Your task to perform on an android device: Open calendar and show me the fourth week of next month Image 0: 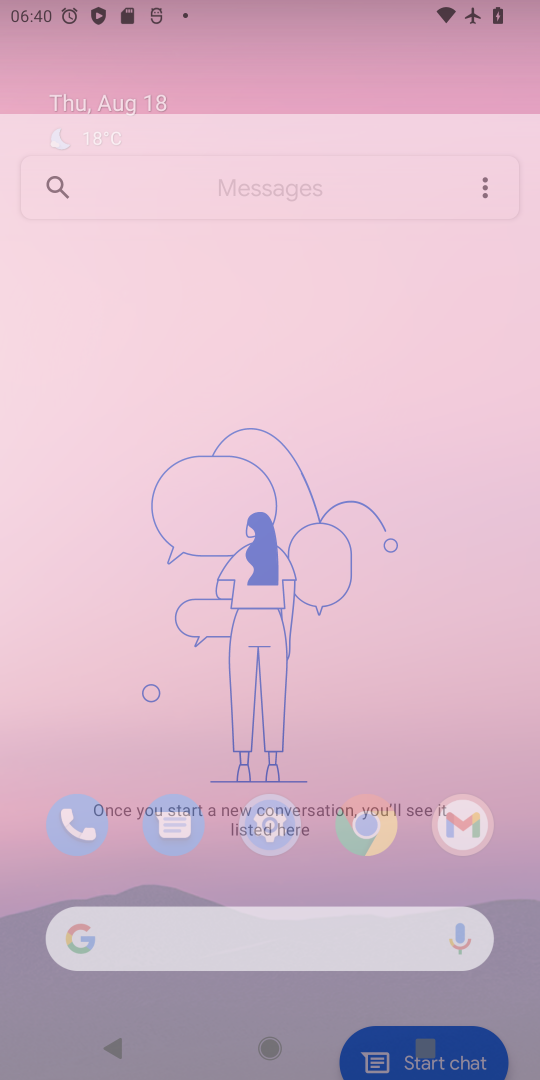
Step 0: press home button
Your task to perform on an android device: Open calendar and show me the fourth week of next month Image 1: 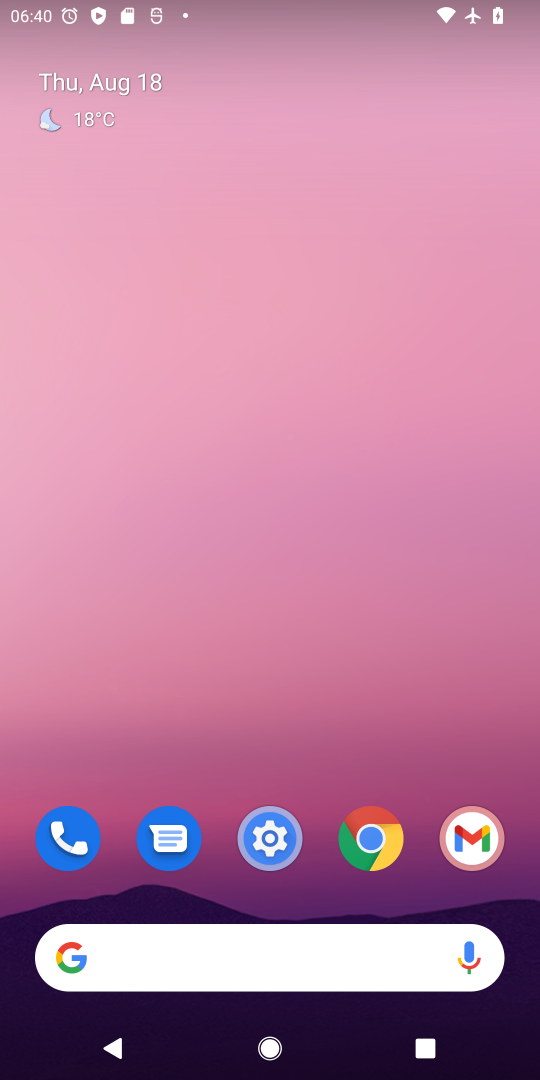
Step 1: drag from (322, 883) to (365, 7)
Your task to perform on an android device: Open calendar and show me the fourth week of next month Image 2: 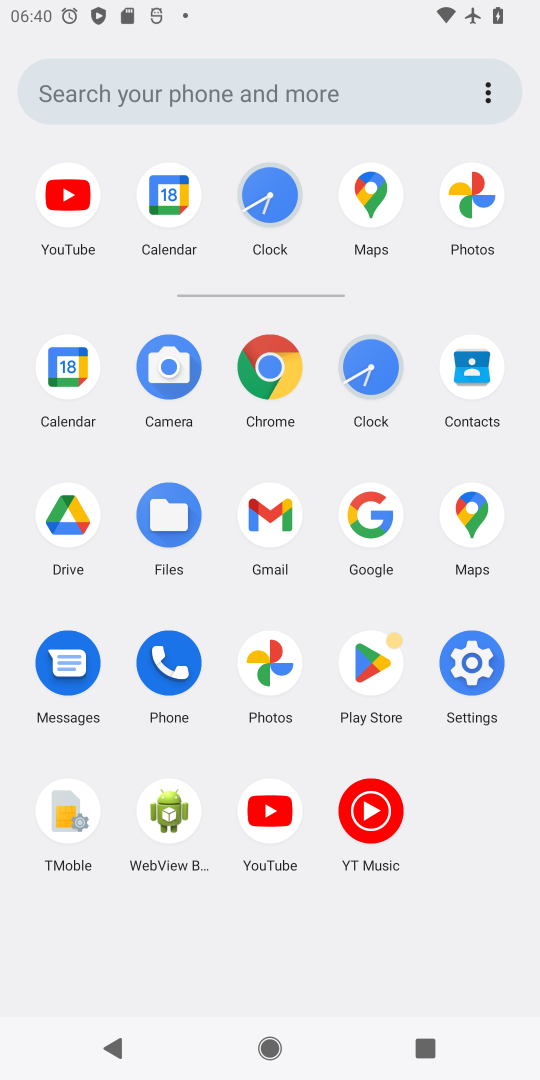
Step 2: click (171, 196)
Your task to perform on an android device: Open calendar and show me the fourth week of next month Image 3: 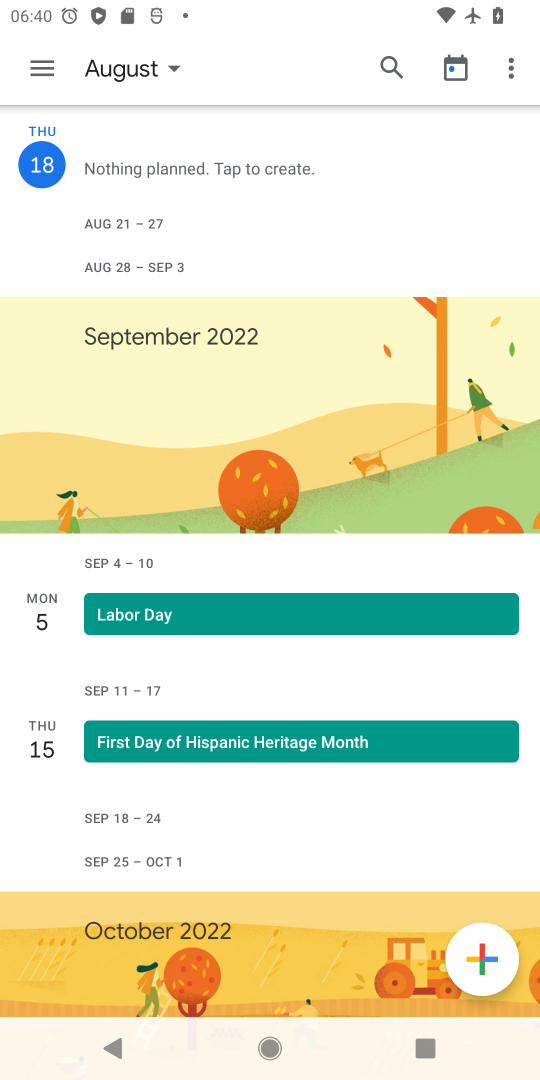
Step 3: click (163, 65)
Your task to perform on an android device: Open calendar and show me the fourth week of next month Image 4: 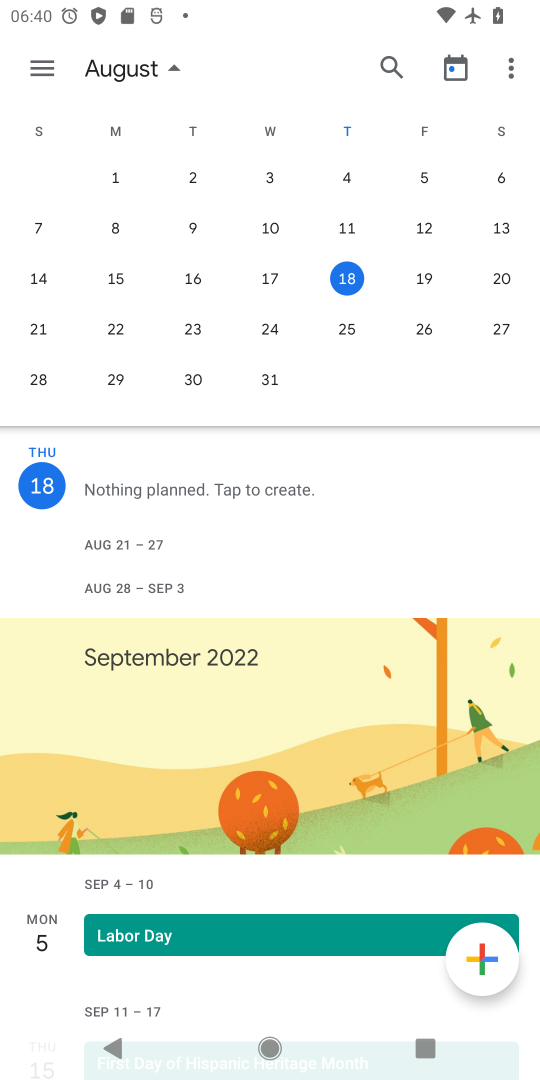
Step 4: drag from (463, 286) to (27, 317)
Your task to perform on an android device: Open calendar and show me the fourth week of next month Image 5: 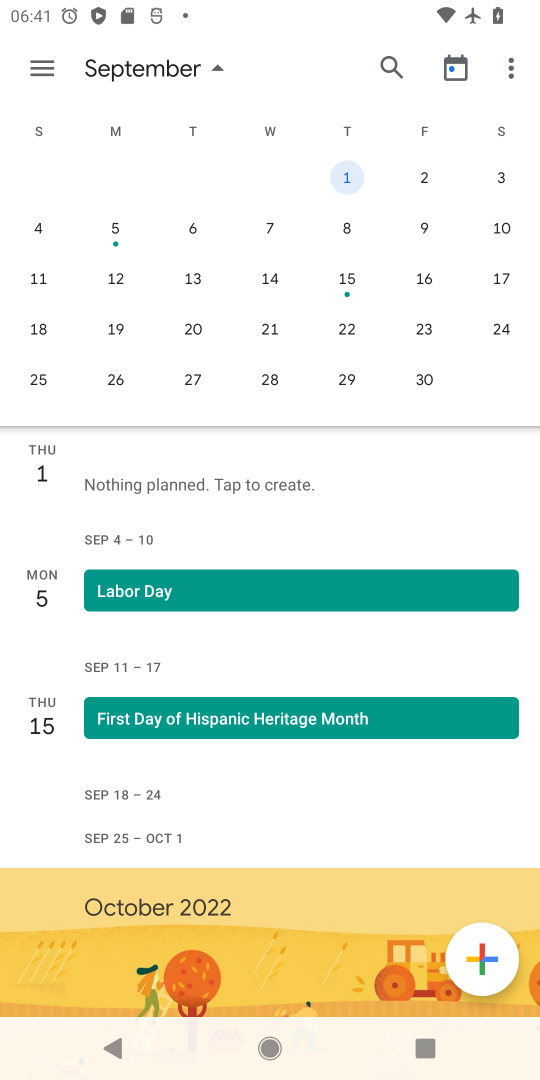
Step 5: click (513, 340)
Your task to perform on an android device: Open calendar and show me the fourth week of next month Image 6: 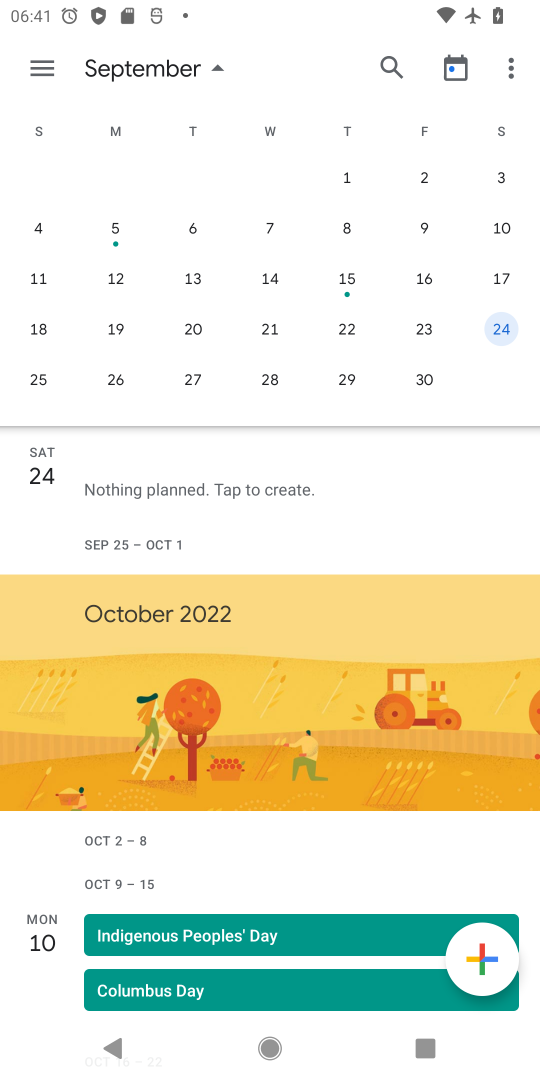
Step 6: click (45, 375)
Your task to perform on an android device: Open calendar and show me the fourth week of next month Image 7: 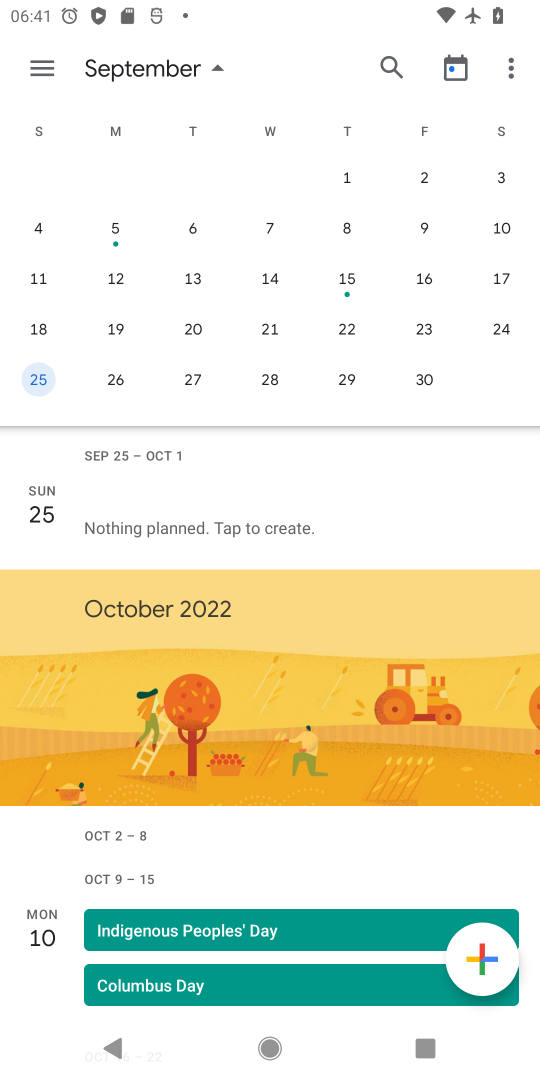
Step 7: click (116, 385)
Your task to perform on an android device: Open calendar and show me the fourth week of next month Image 8: 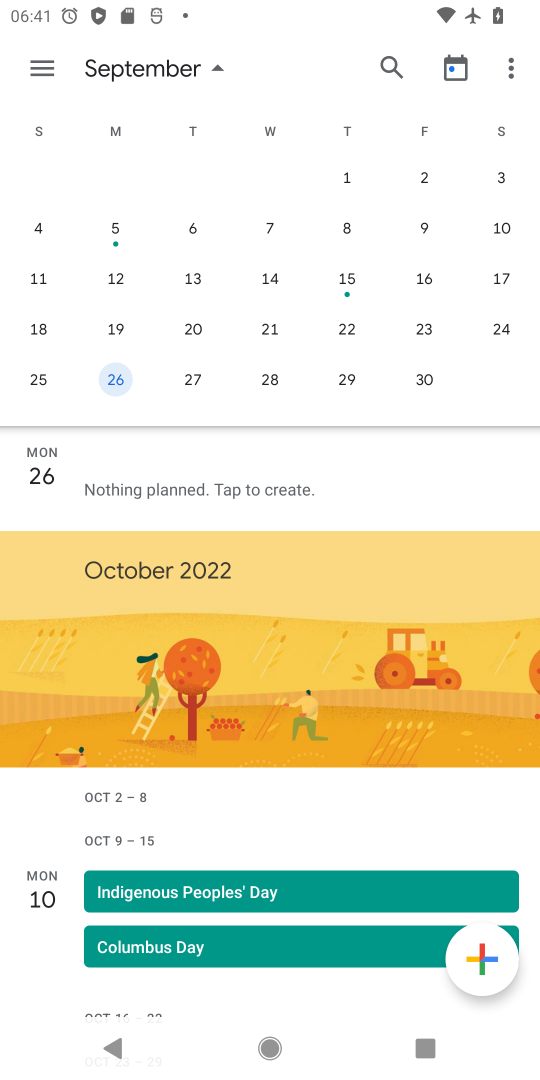
Step 8: click (201, 386)
Your task to perform on an android device: Open calendar and show me the fourth week of next month Image 9: 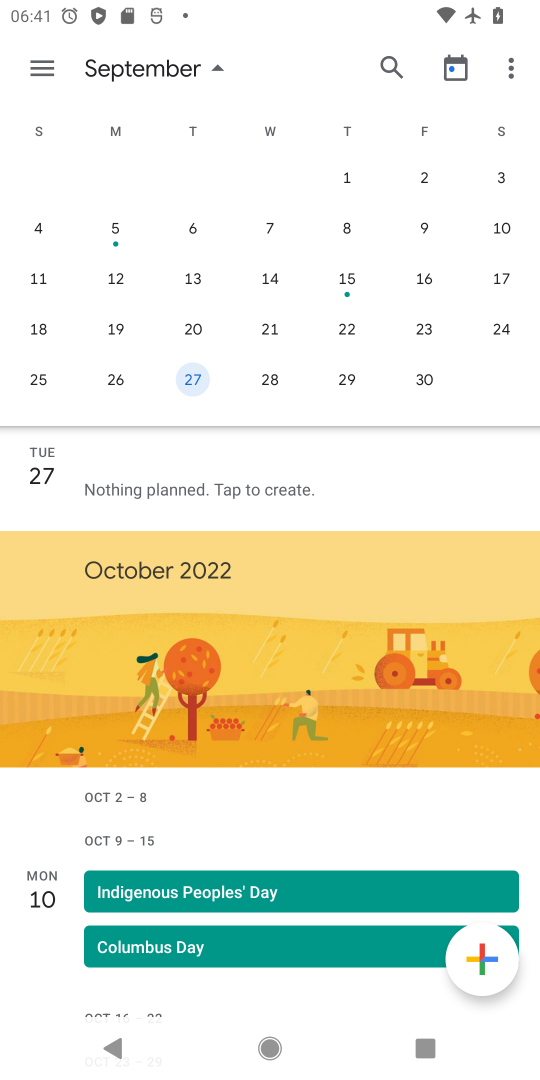
Step 9: click (284, 381)
Your task to perform on an android device: Open calendar and show me the fourth week of next month Image 10: 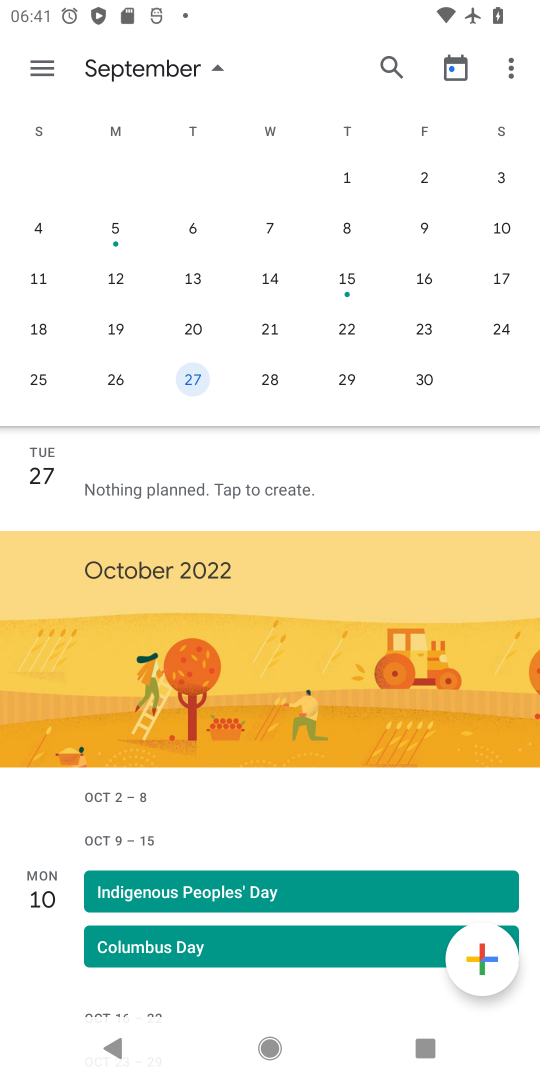
Step 10: click (347, 385)
Your task to perform on an android device: Open calendar and show me the fourth week of next month Image 11: 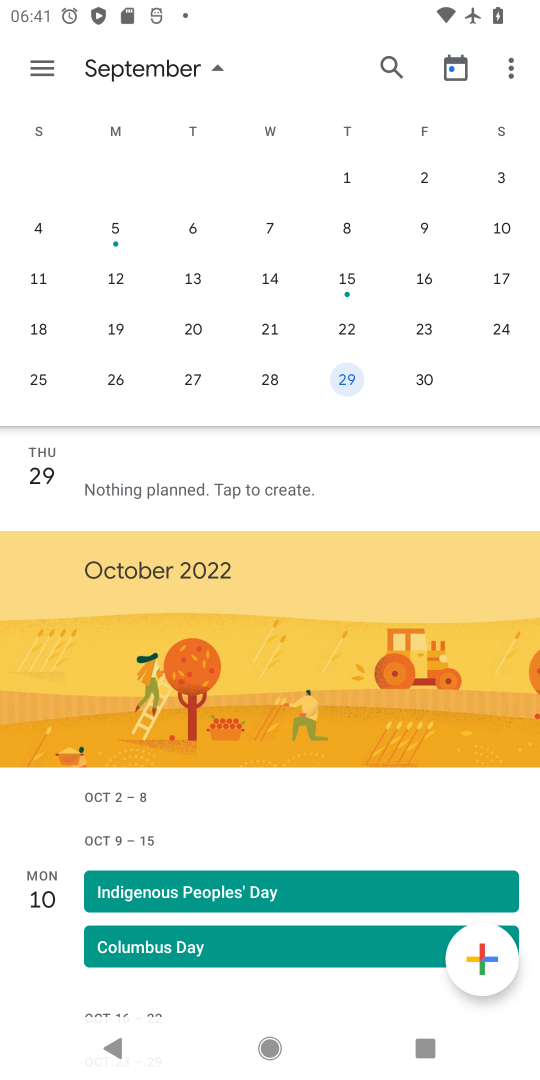
Step 11: click (422, 387)
Your task to perform on an android device: Open calendar and show me the fourth week of next month Image 12: 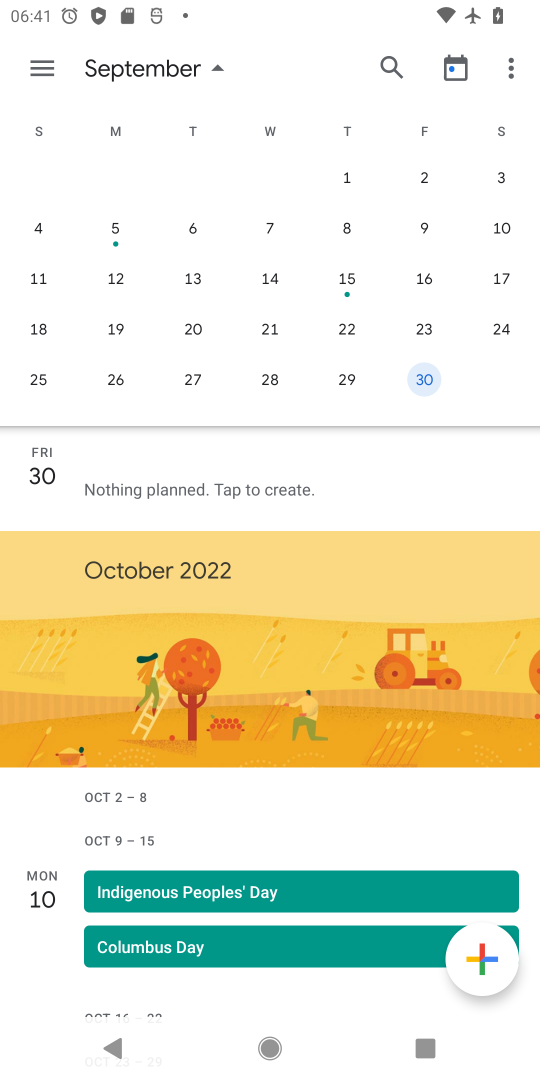
Step 12: task complete